Your task to perform on an android device: empty trash in google photos Image 0: 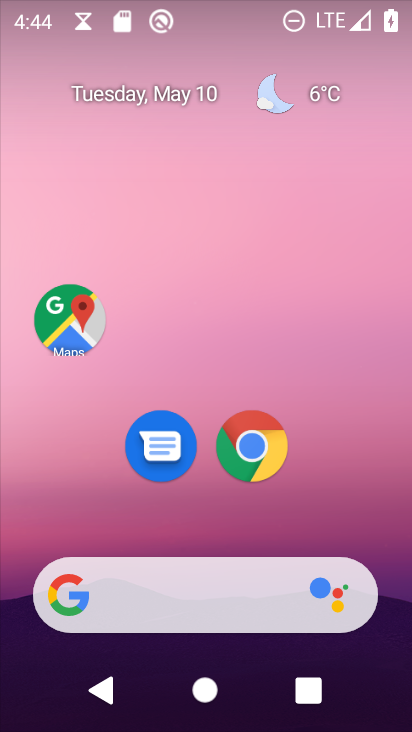
Step 0: drag from (221, 523) to (176, 136)
Your task to perform on an android device: empty trash in google photos Image 1: 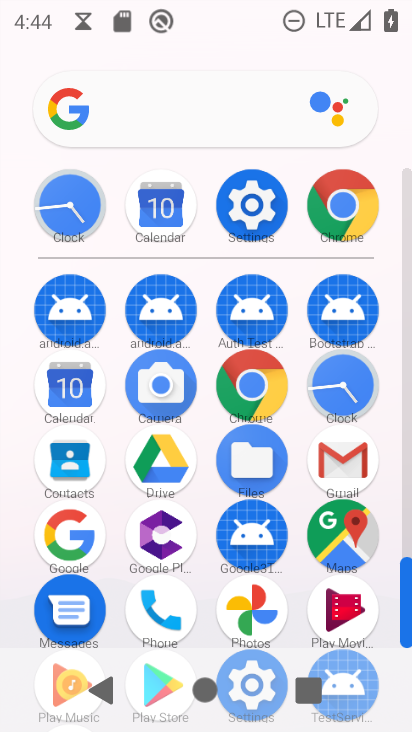
Step 1: click (258, 611)
Your task to perform on an android device: empty trash in google photos Image 2: 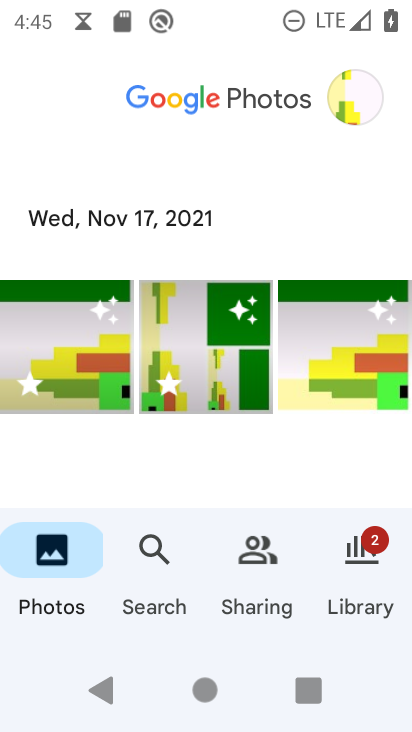
Step 2: click (365, 584)
Your task to perform on an android device: empty trash in google photos Image 3: 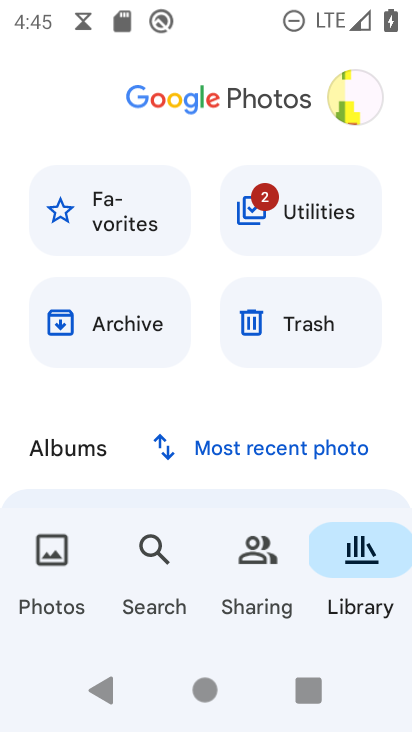
Step 3: click (312, 316)
Your task to perform on an android device: empty trash in google photos Image 4: 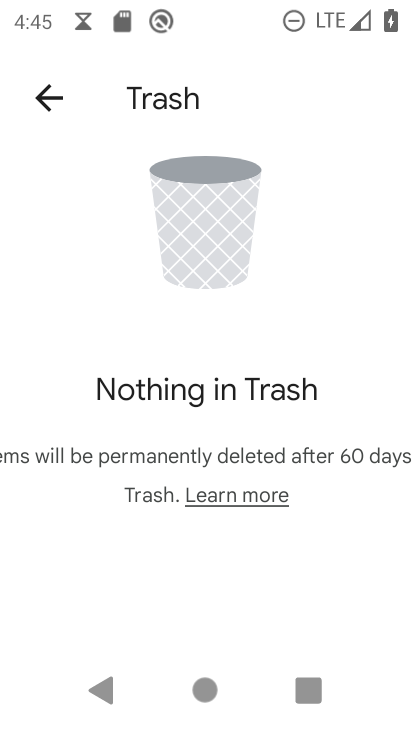
Step 4: task complete